Your task to perform on an android device: turn off javascript in the chrome app Image 0: 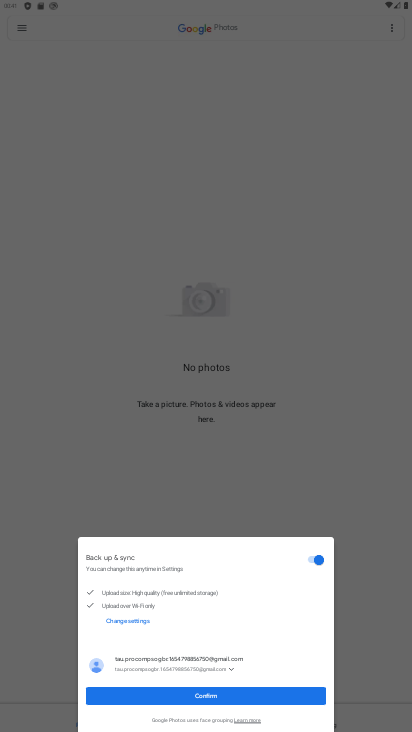
Step 0: press home button
Your task to perform on an android device: turn off javascript in the chrome app Image 1: 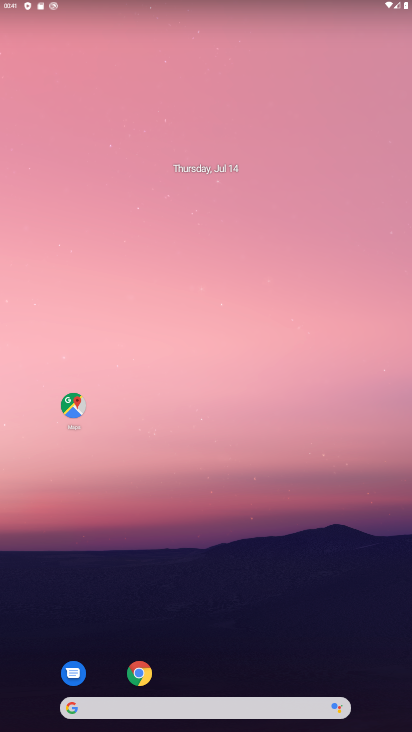
Step 1: click (135, 678)
Your task to perform on an android device: turn off javascript in the chrome app Image 2: 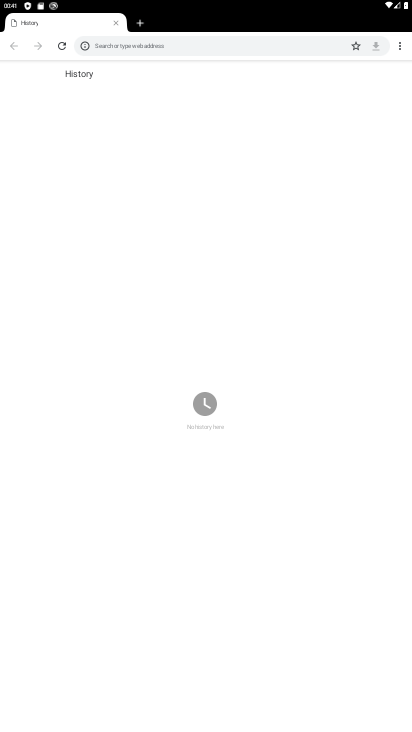
Step 2: click (401, 50)
Your task to perform on an android device: turn off javascript in the chrome app Image 3: 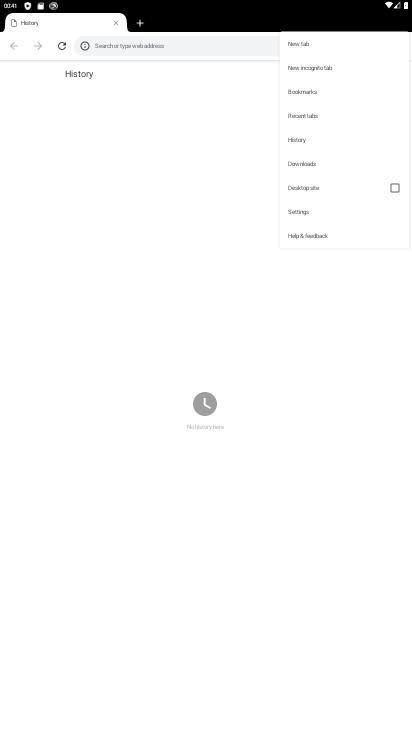
Step 3: click (325, 202)
Your task to perform on an android device: turn off javascript in the chrome app Image 4: 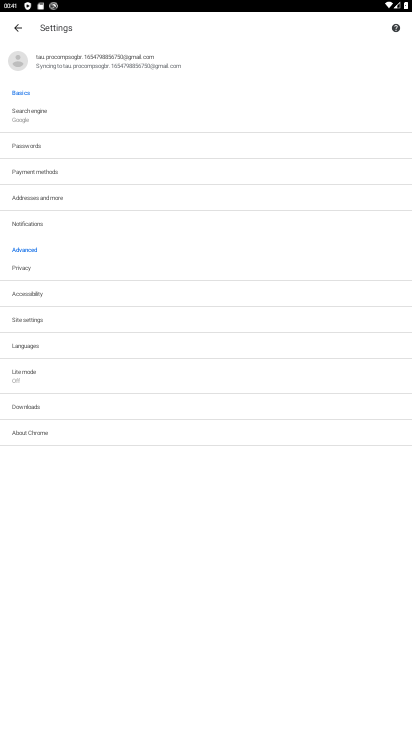
Step 4: click (120, 315)
Your task to perform on an android device: turn off javascript in the chrome app Image 5: 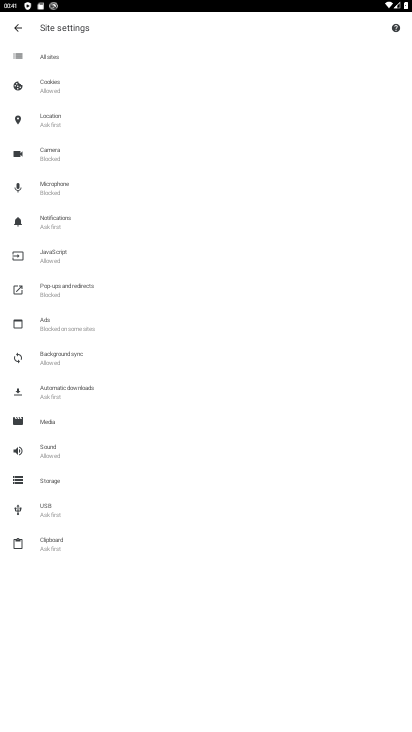
Step 5: click (101, 258)
Your task to perform on an android device: turn off javascript in the chrome app Image 6: 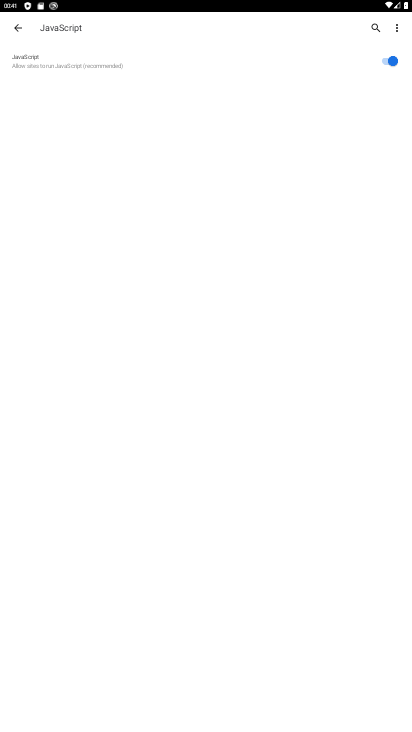
Step 6: click (395, 69)
Your task to perform on an android device: turn off javascript in the chrome app Image 7: 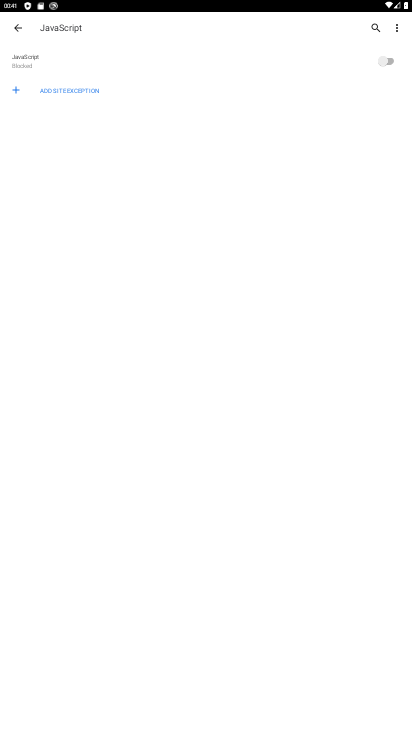
Step 7: task complete